Your task to perform on an android device: choose inbox layout in the gmail app Image 0: 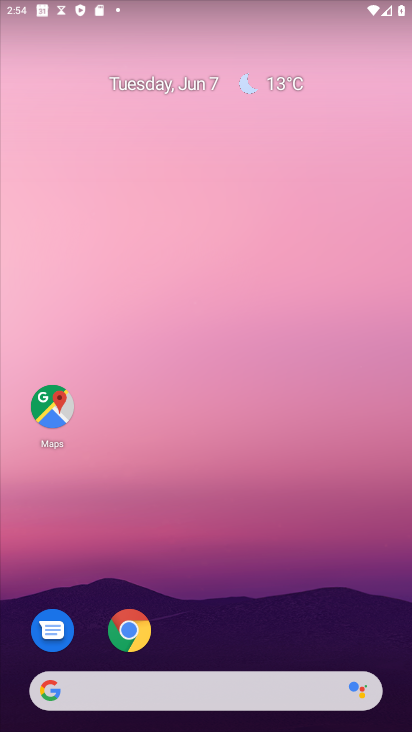
Step 0: drag from (243, 684) to (259, 76)
Your task to perform on an android device: choose inbox layout in the gmail app Image 1: 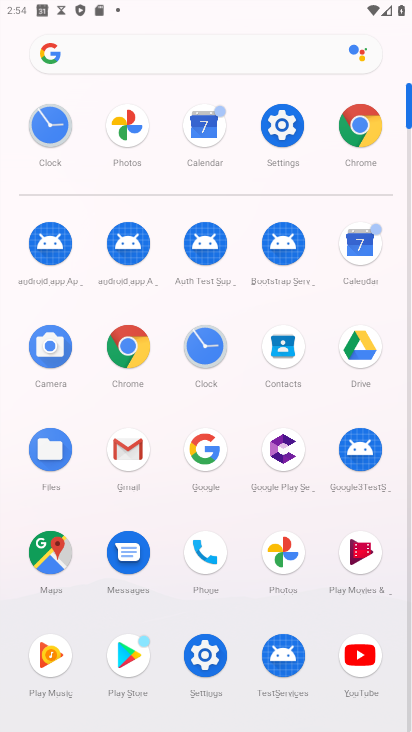
Step 1: click (115, 455)
Your task to perform on an android device: choose inbox layout in the gmail app Image 2: 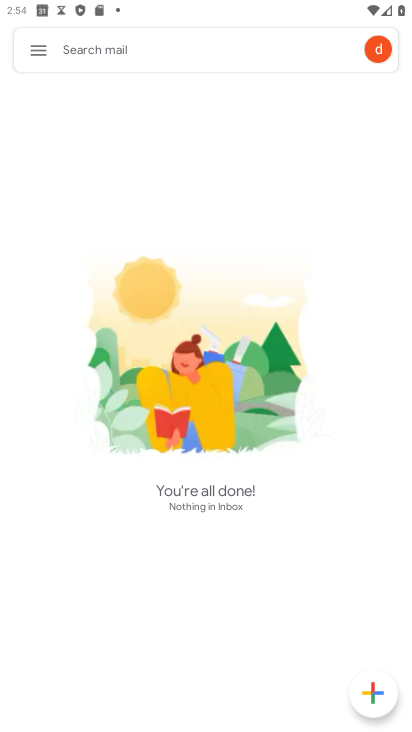
Step 2: click (36, 59)
Your task to perform on an android device: choose inbox layout in the gmail app Image 3: 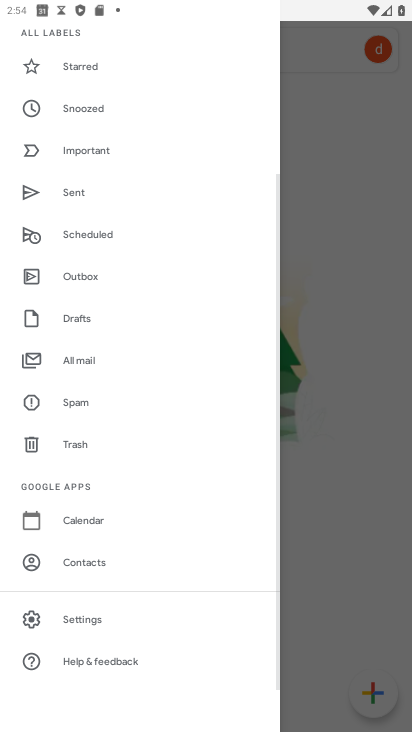
Step 3: click (85, 617)
Your task to perform on an android device: choose inbox layout in the gmail app Image 4: 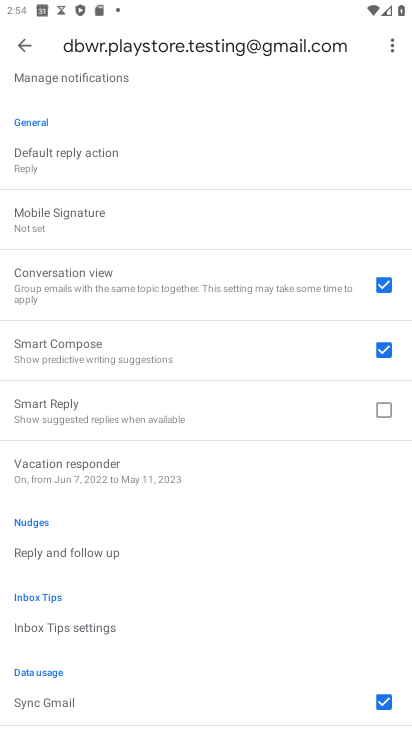
Step 4: drag from (165, 620) to (221, 723)
Your task to perform on an android device: choose inbox layout in the gmail app Image 5: 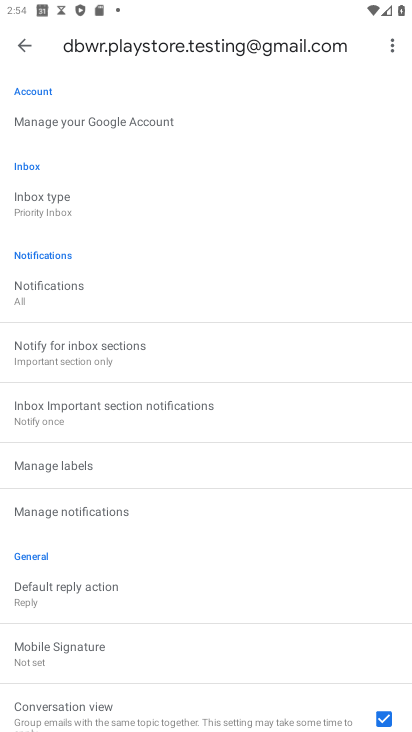
Step 5: click (34, 199)
Your task to perform on an android device: choose inbox layout in the gmail app Image 6: 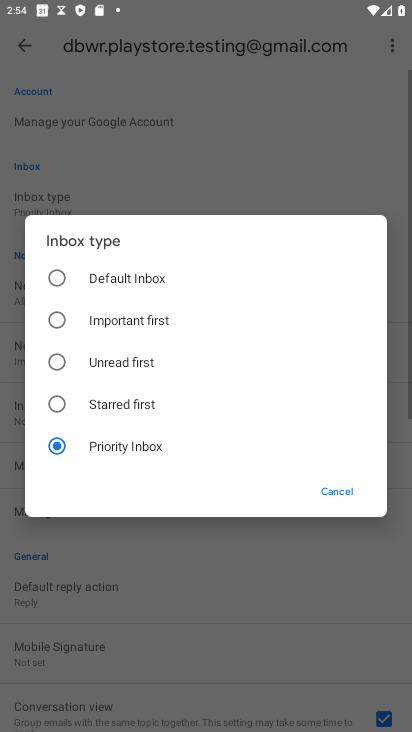
Step 6: click (74, 273)
Your task to perform on an android device: choose inbox layout in the gmail app Image 7: 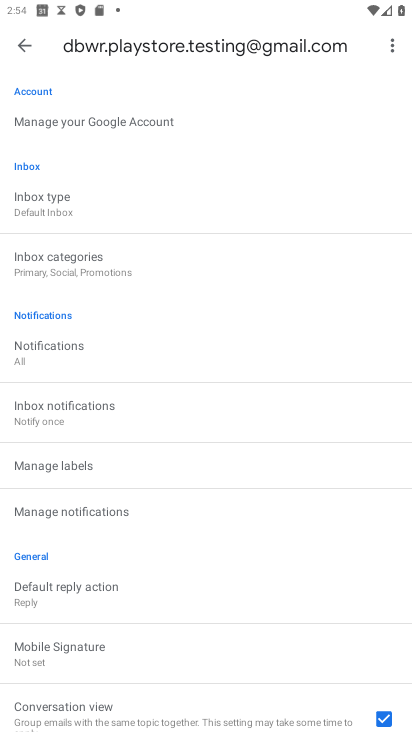
Step 7: task complete